Your task to perform on an android device: Go to settings Image 0: 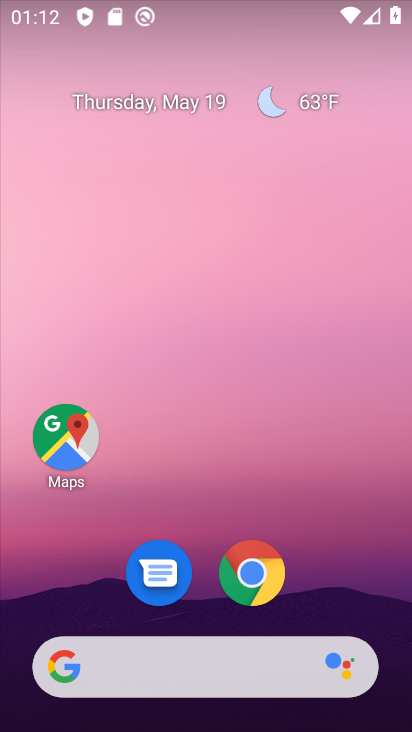
Step 0: drag from (341, 560) to (389, 9)
Your task to perform on an android device: Go to settings Image 1: 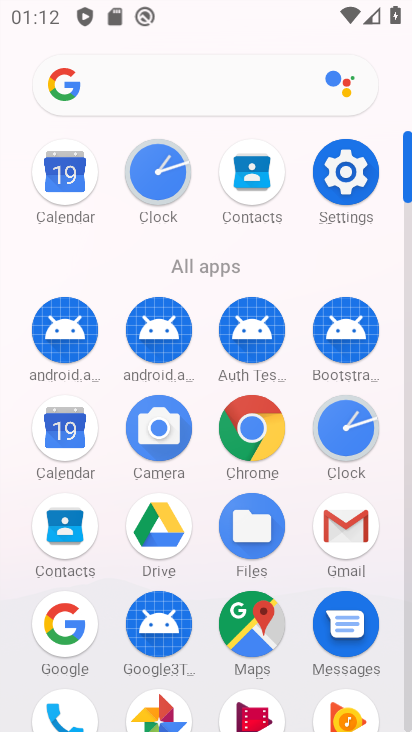
Step 1: click (350, 178)
Your task to perform on an android device: Go to settings Image 2: 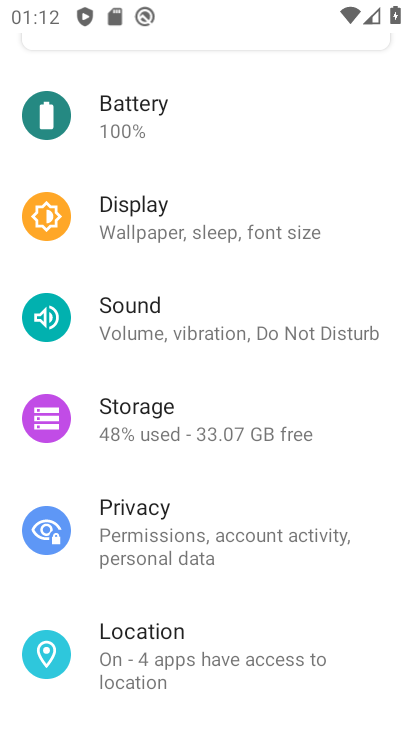
Step 2: task complete